Your task to perform on an android device: Do I have any events tomorrow? Image 0: 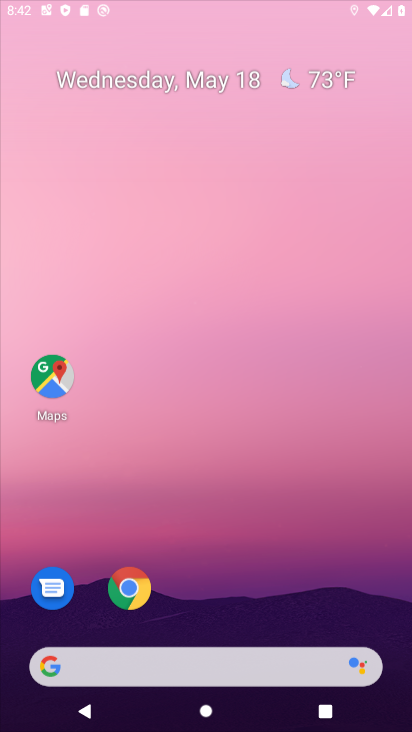
Step 0: drag from (340, 576) to (332, 207)
Your task to perform on an android device: Do I have any events tomorrow? Image 1: 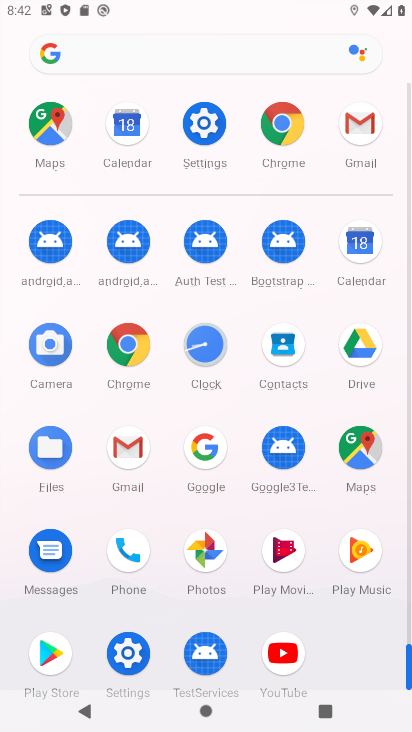
Step 1: click (359, 251)
Your task to perform on an android device: Do I have any events tomorrow? Image 2: 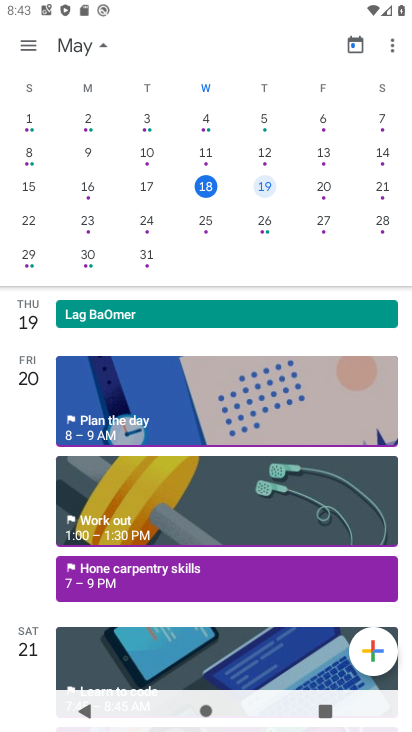
Step 2: task complete